Your task to perform on an android device: Open the stopwatch Image 0: 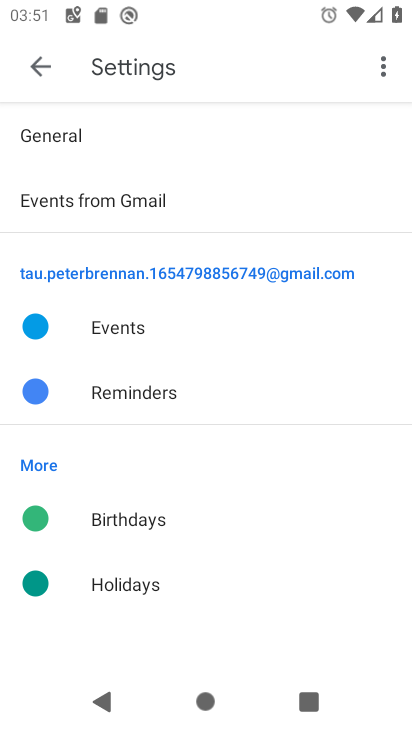
Step 0: press home button
Your task to perform on an android device: Open the stopwatch Image 1: 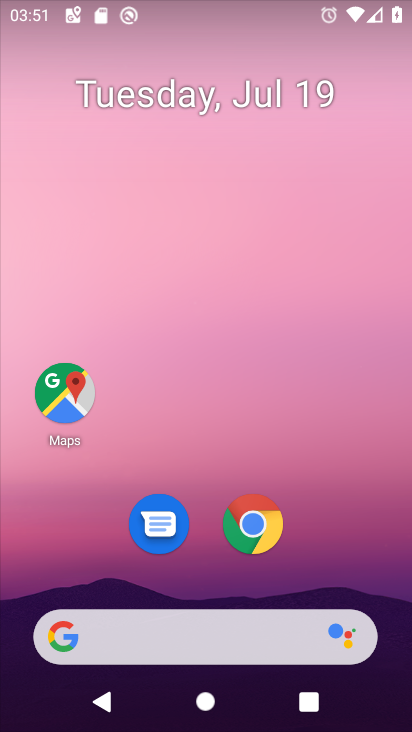
Step 1: drag from (321, 555) to (286, 45)
Your task to perform on an android device: Open the stopwatch Image 2: 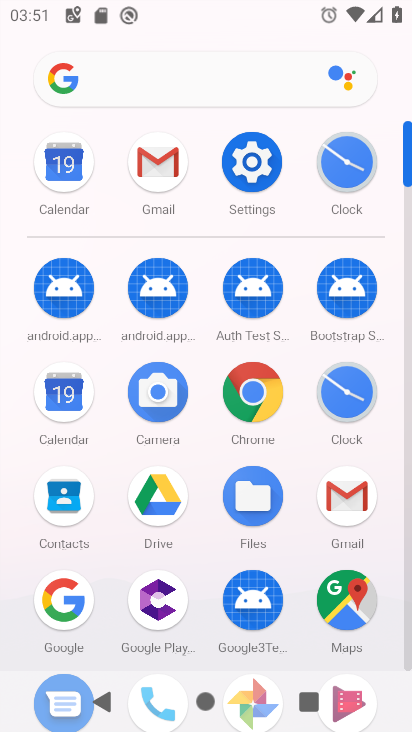
Step 2: click (346, 170)
Your task to perform on an android device: Open the stopwatch Image 3: 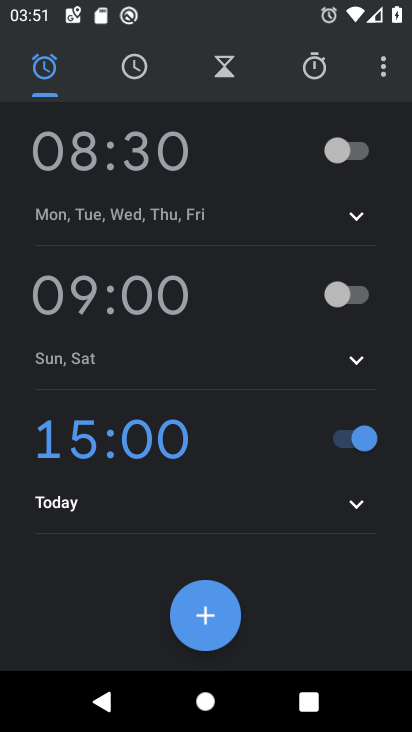
Step 3: click (315, 73)
Your task to perform on an android device: Open the stopwatch Image 4: 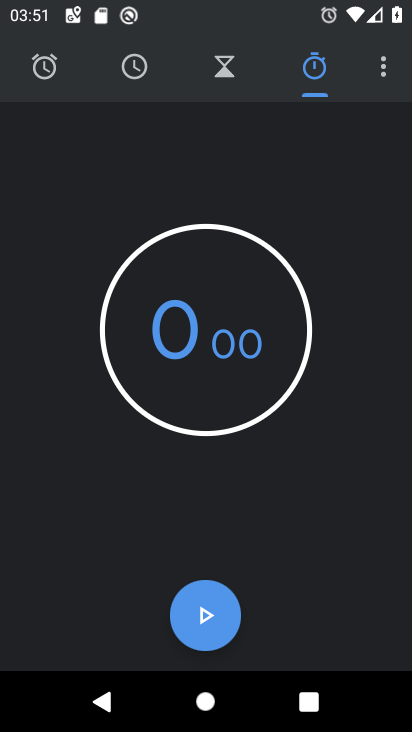
Step 4: task complete